Your task to perform on an android device: turn on javascript in the chrome app Image 0: 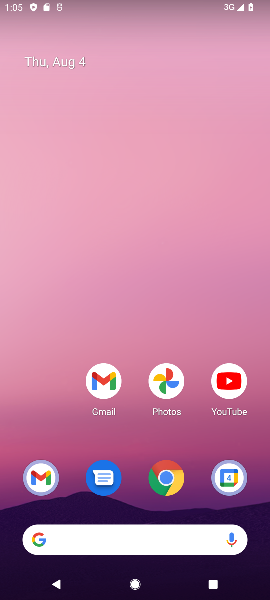
Step 0: press home button
Your task to perform on an android device: turn on javascript in the chrome app Image 1: 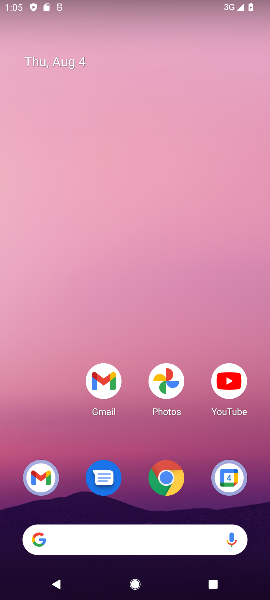
Step 1: drag from (93, 482) to (111, 86)
Your task to perform on an android device: turn on javascript in the chrome app Image 2: 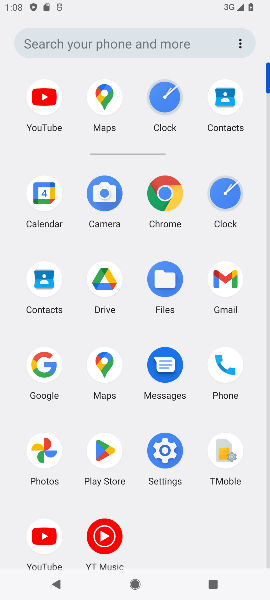
Step 2: click (165, 194)
Your task to perform on an android device: turn on javascript in the chrome app Image 3: 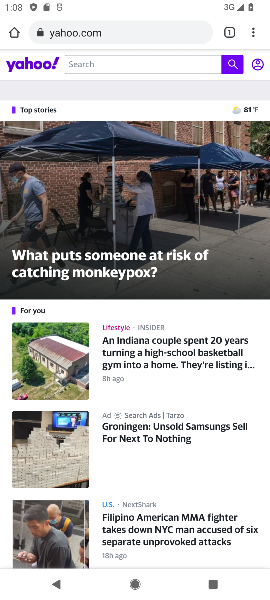
Step 3: drag from (252, 27) to (146, 432)
Your task to perform on an android device: turn on javascript in the chrome app Image 4: 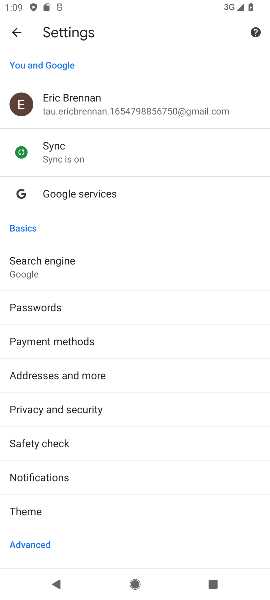
Step 4: drag from (122, 502) to (94, 122)
Your task to perform on an android device: turn on javascript in the chrome app Image 5: 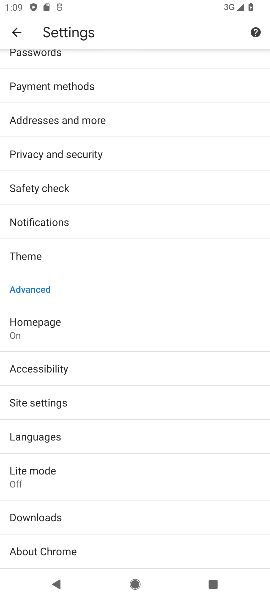
Step 5: drag from (64, 506) to (73, 305)
Your task to perform on an android device: turn on javascript in the chrome app Image 6: 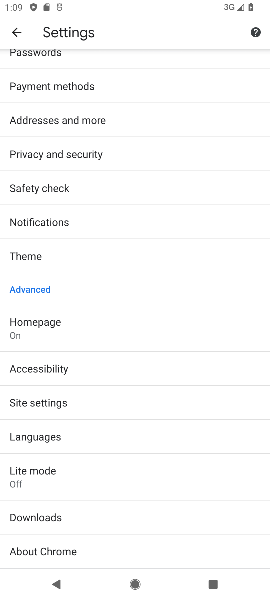
Step 6: click (62, 395)
Your task to perform on an android device: turn on javascript in the chrome app Image 7: 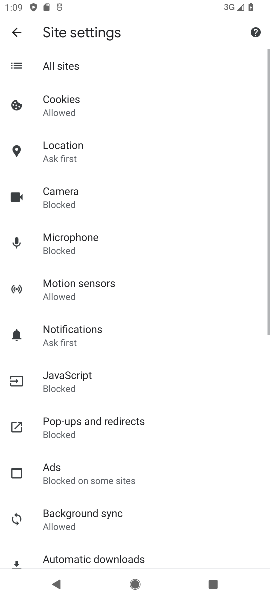
Step 7: click (66, 386)
Your task to perform on an android device: turn on javascript in the chrome app Image 8: 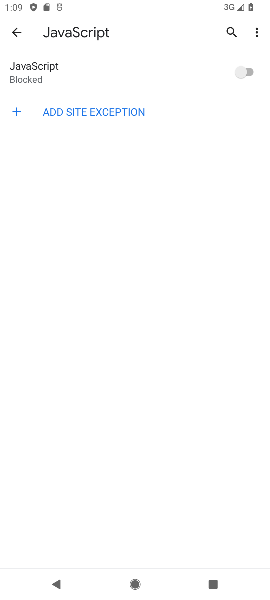
Step 8: click (172, 78)
Your task to perform on an android device: turn on javascript in the chrome app Image 9: 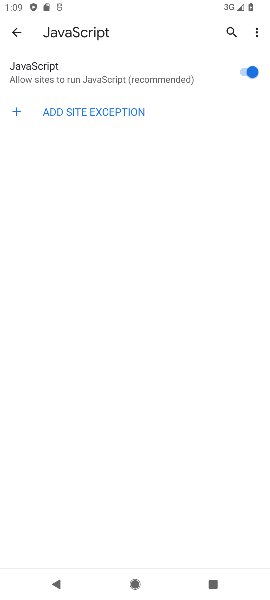
Step 9: task complete